Your task to perform on an android device: What's the weather going to be this weekend? Image 0: 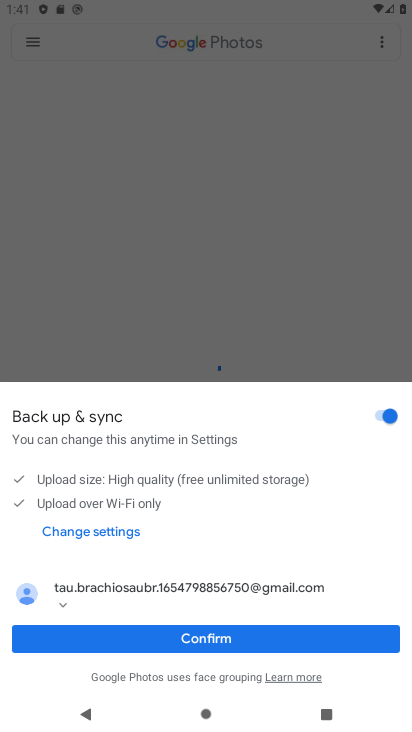
Step 0: press home button
Your task to perform on an android device: What's the weather going to be this weekend? Image 1: 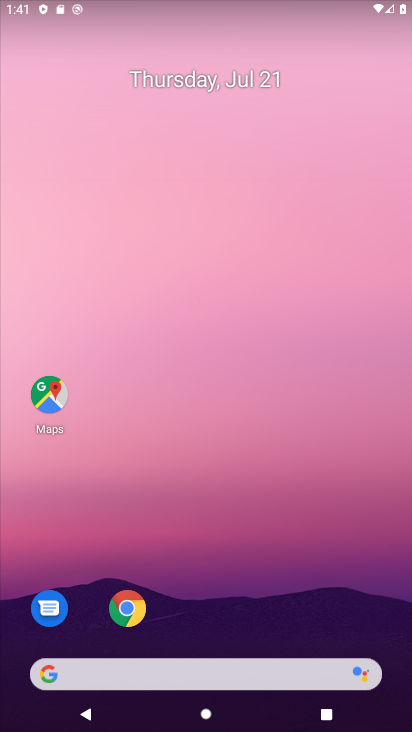
Step 1: click (166, 665)
Your task to perform on an android device: What's the weather going to be this weekend? Image 2: 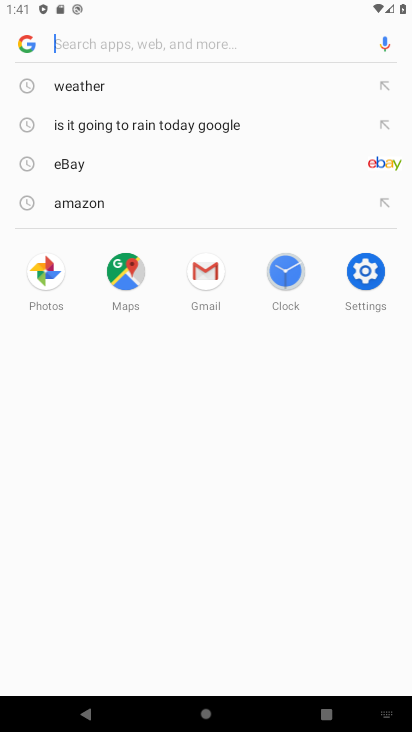
Step 2: type "What's the weather going to be this weekend?"
Your task to perform on an android device: What's the weather going to be this weekend? Image 3: 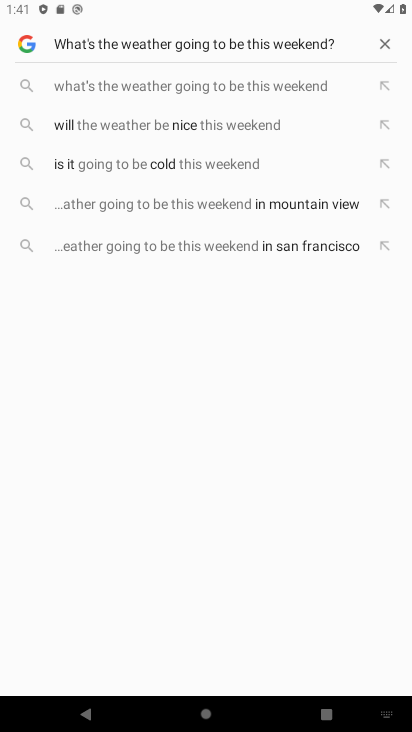
Step 3: click (223, 82)
Your task to perform on an android device: What's the weather going to be this weekend? Image 4: 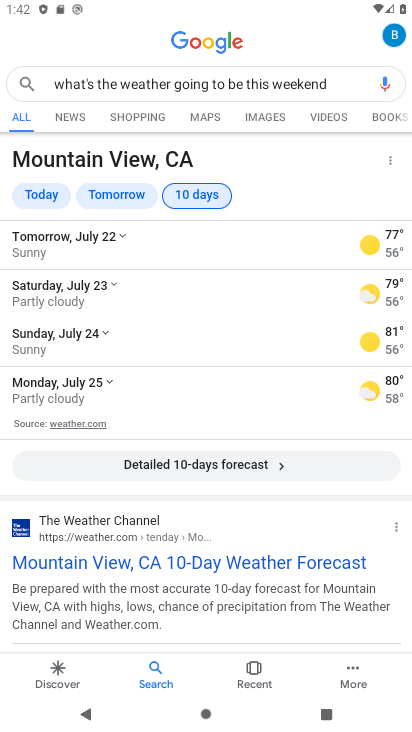
Step 4: task complete